Your task to perform on an android device: check the backup settings in the google photos Image 0: 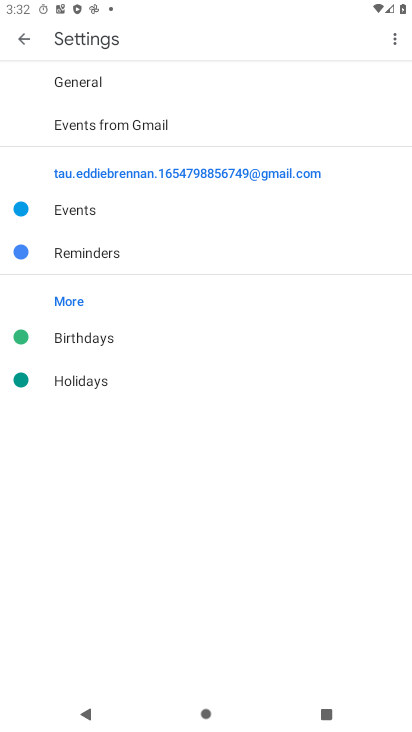
Step 0: press home button
Your task to perform on an android device: check the backup settings in the google photos Image 1: 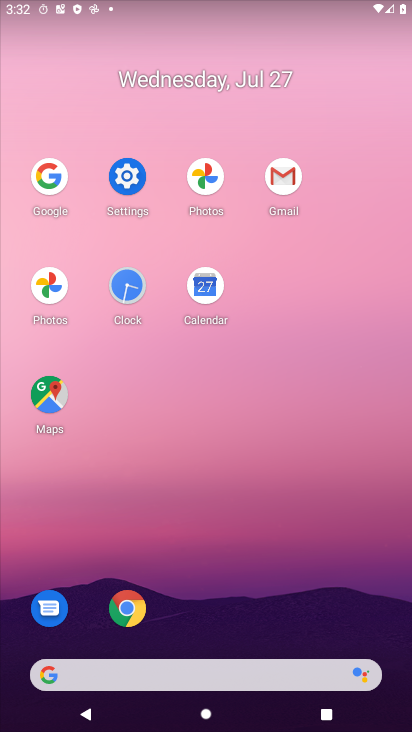
Step 1: click (43, 285)
Your task to perform on an android device: check the backup settings in the google photos Image 2: 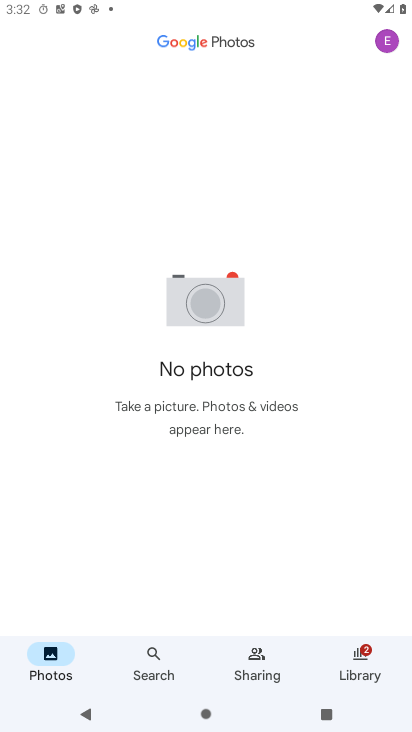
Step 2: click (379, 41)
Your task to perform on an android device: check the backup settings in the google photos Image 3: 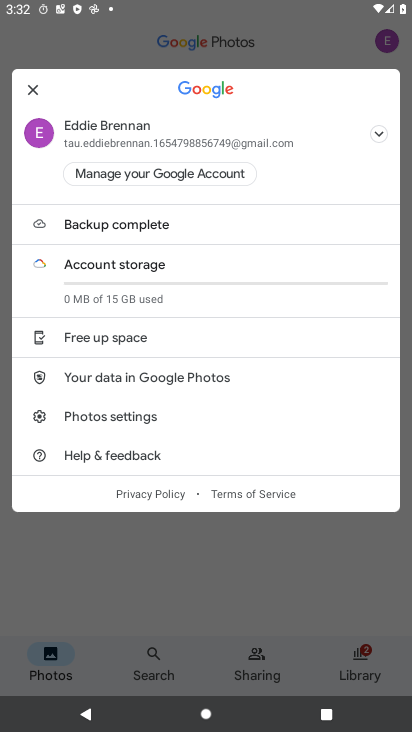
Step 3: click (120, 419)
Your task to perform on an android device: check the backup settings in the google photos Image 4: 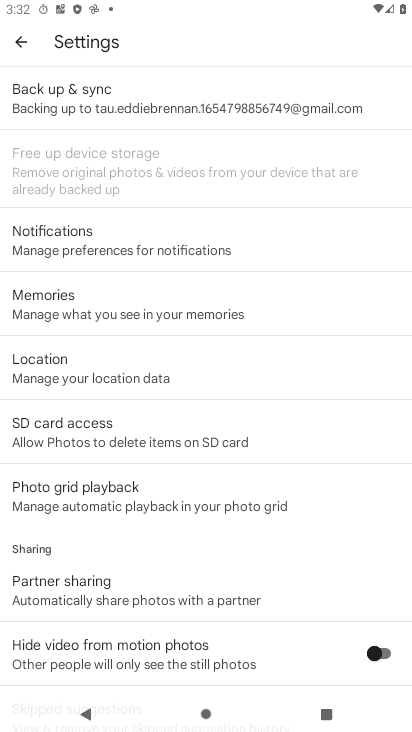
Step 4: click (153, 99)
Your task to perform on an android device: check the backup settings in the google photos Image 5: 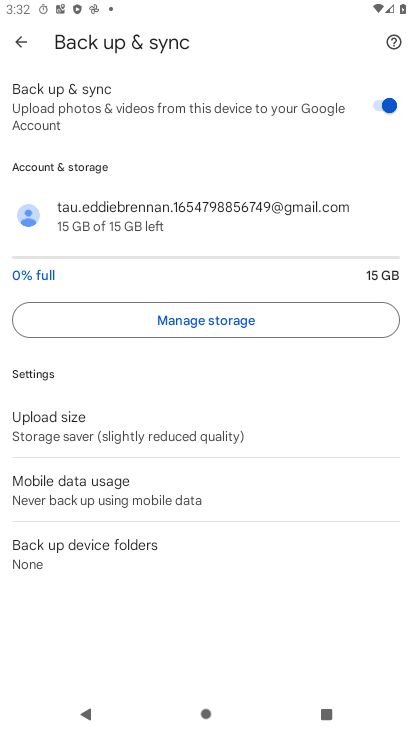
Step 5: click (150, 419)
Your task to perform on an android device: check the backup settings in the google photos Image 6: 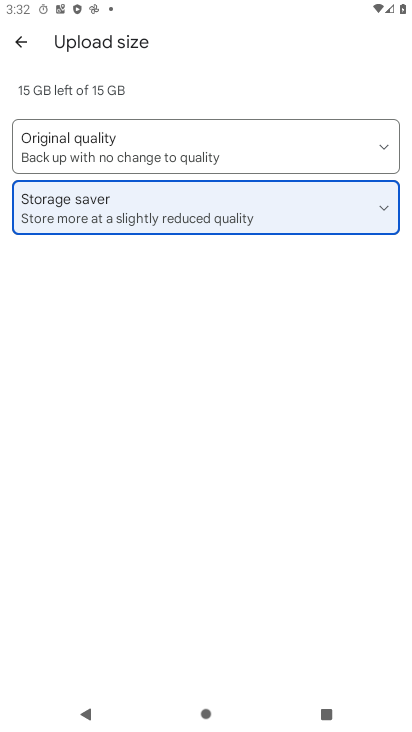
Step 6: click (81, 145)
Your task to perform on an android device: check the backup settings in the google photos Image 7: 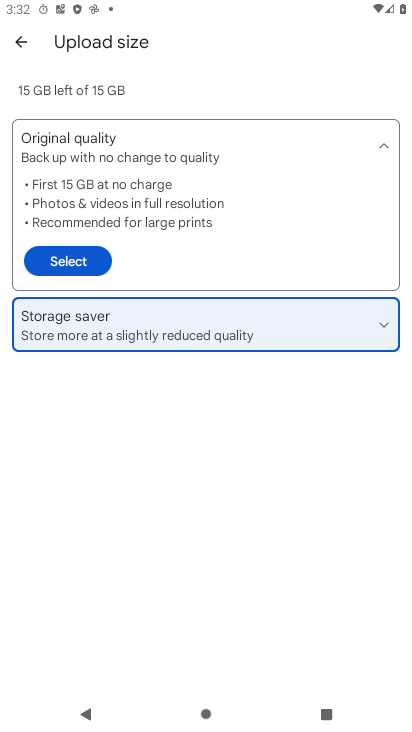
Step 7: click (79, 252)
Your task to perform on an android device: check the backup settings in the google photos Image 8: 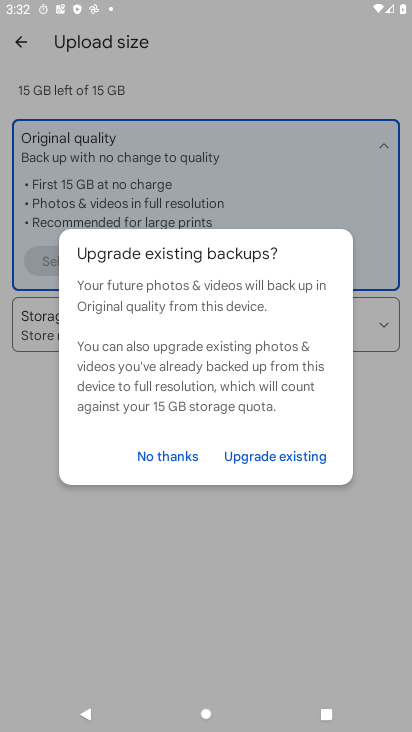
Step 8: click (235, 464)
Your task to perform on an android device: check the backup settings in the google photos Image 9: 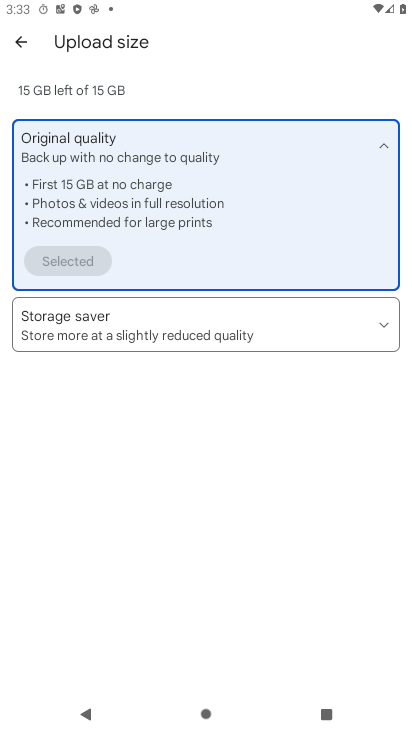
Step 9: task complete